Your task to perform on an android device: change notification settings in the gmail app Image 0: 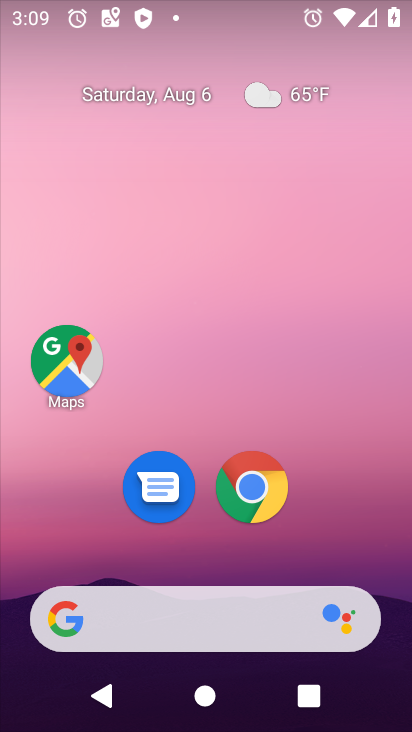
Step 0: drag from (223, 595) to (227, 130)
Your task to perform on an android device: change notification settings in the gmail app Image 1: 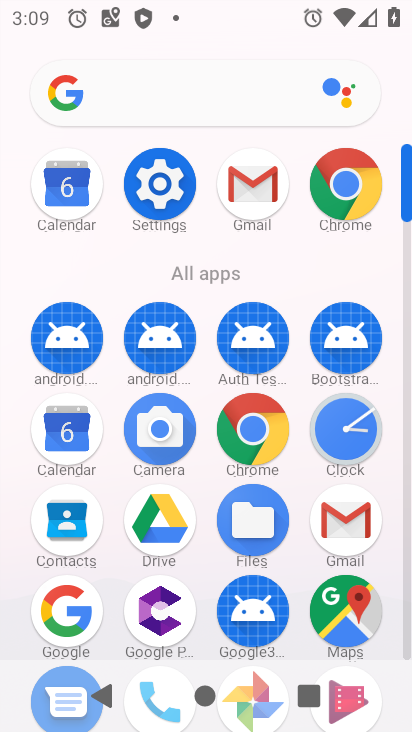
Step 1: click (245, 191)
Your task to perform on an android device: change notification settings in the gmail app Image 2: 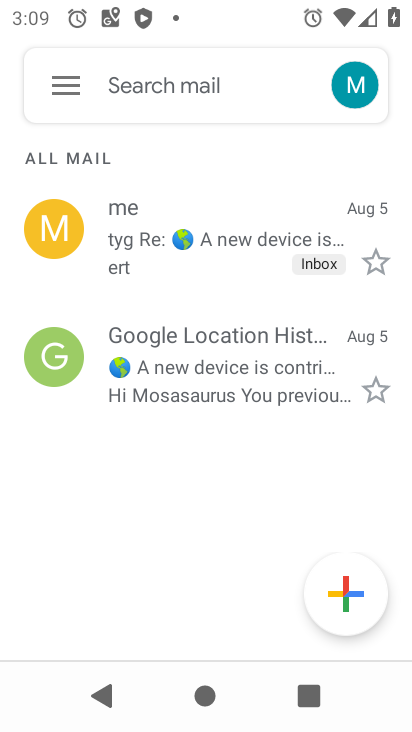
Step 2: click (77, 91)
Your task to perform on an android device: change notification settings in the gmail app Image 3: 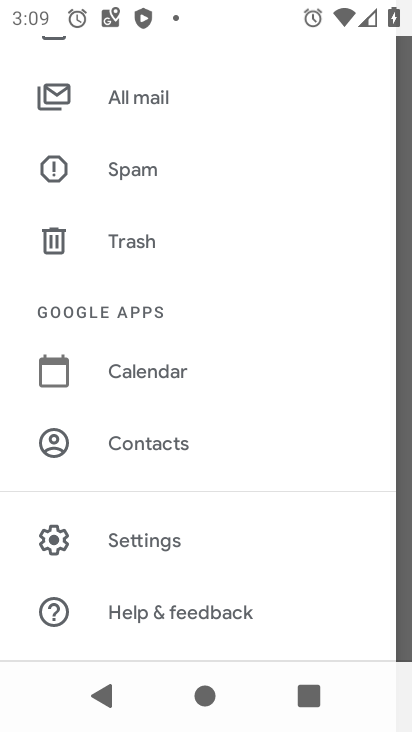
Step 3: click (145, 562)
Your task to perform on an android device: change notification settings in the gmail app Image 4: 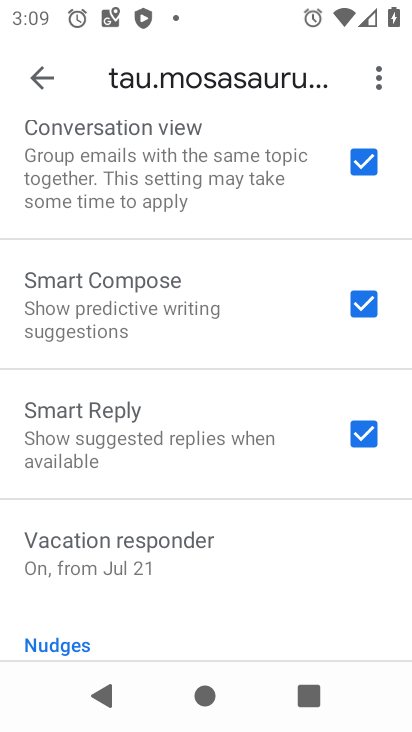
Step 4: drag from (174, 174) to (218, 586)
Your task to perform on an android device: change notification settings in the gmail app Image 5: 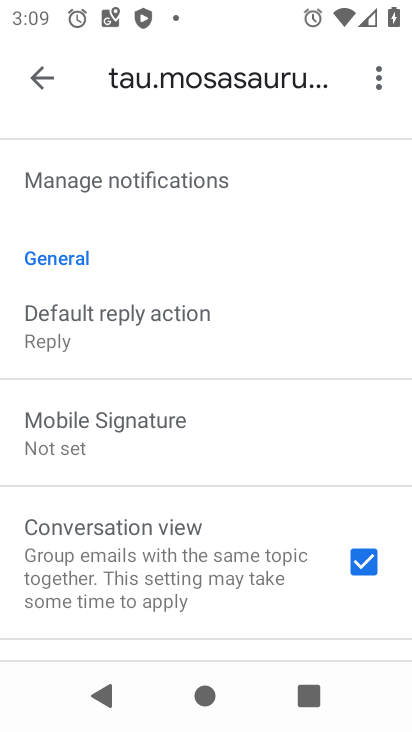
Step 5: click (152, 196)
Your task to perform on an android device: change notification settings in the gmail app Image 6: 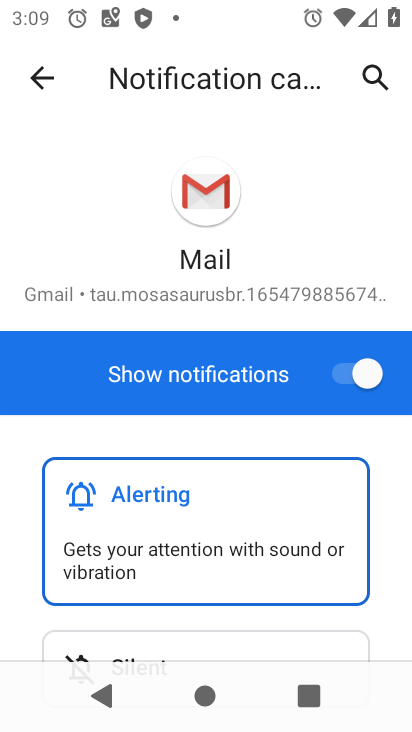
Step 6: click (258, 643)
Your task to perform on an android device: change notification settings in the gmail app Image 7: 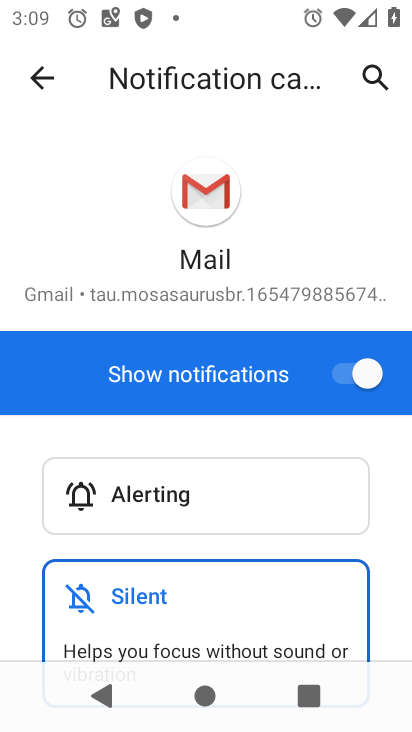
Step 7: task complete